Your task to perform on an android device: turn notification dots on Image 0: 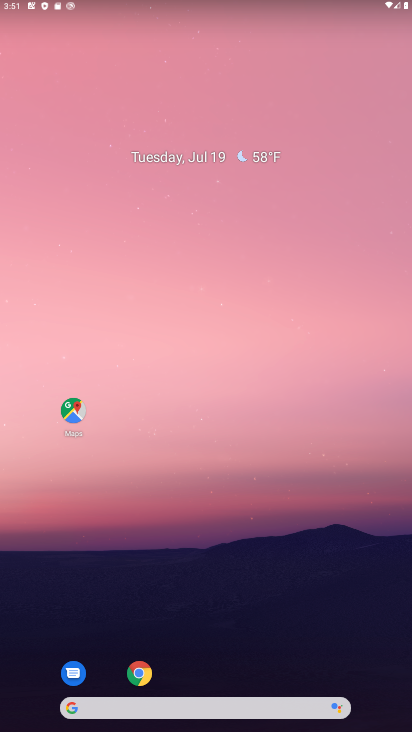
Step 0: drag from (258, 628) to (143, 133)
Your task to perform on an android device: turn notification dots on Image 1: 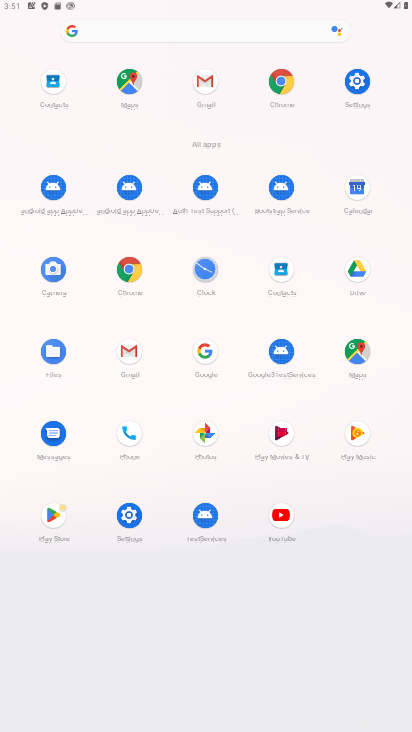
Step 1: click (126, 505)
Your task to perform on an android device: turn notification dots on Image 2: 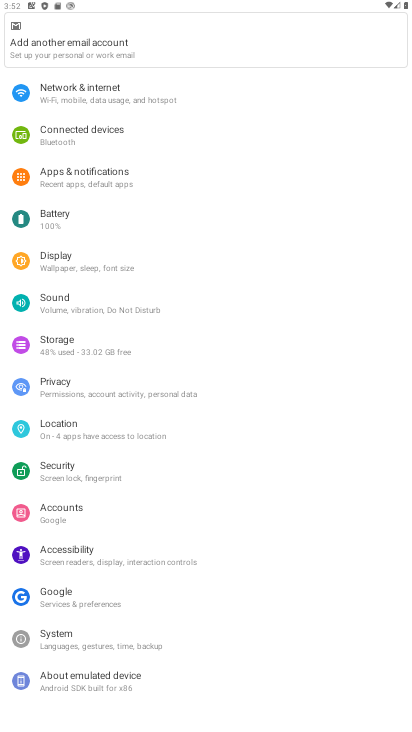
Step 2: click (135, 172)
Your task to perform on an android device: turn notification dots on Image 3: 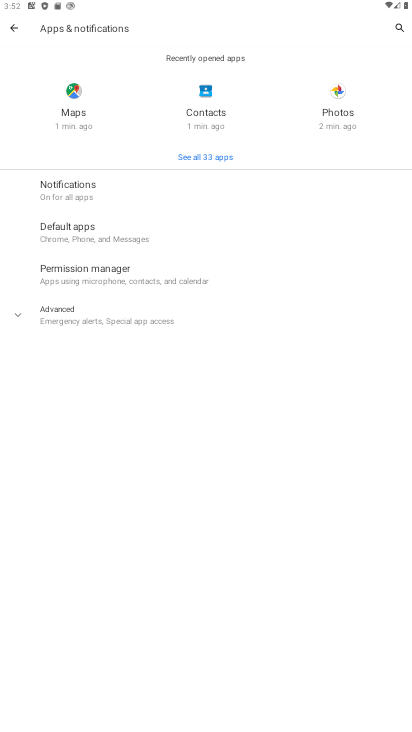
Step 3: click (130, 191)
Your task to perform on an android device: turn notification dots on Image 4: 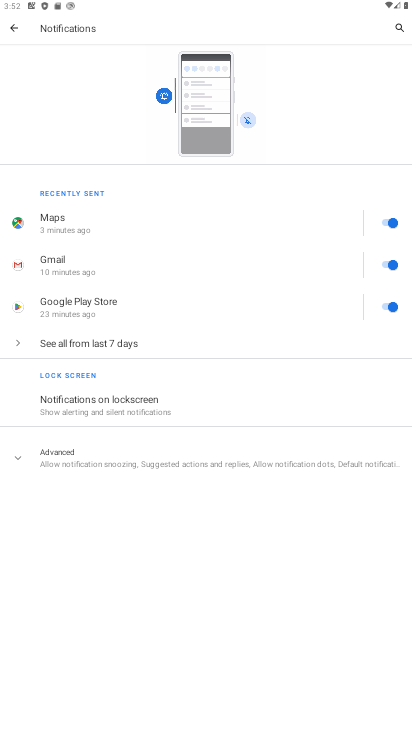
Step 4: click (122, 448)
Your task to perform on an android device: turn notification dots on Image 5: 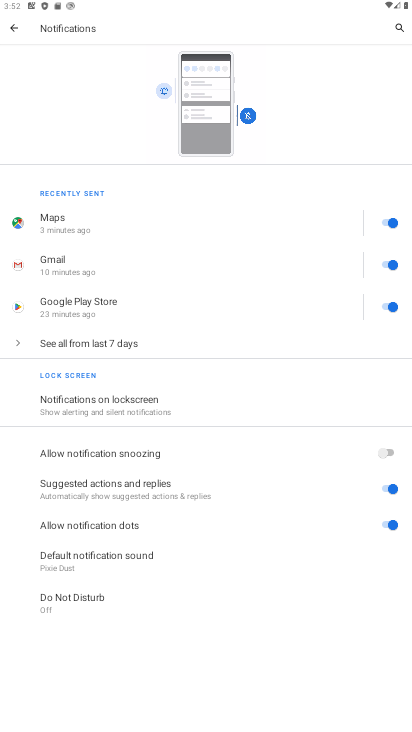
Step 5: task complete